Your task to perform on an android device: turn off airplane mode Image 0: 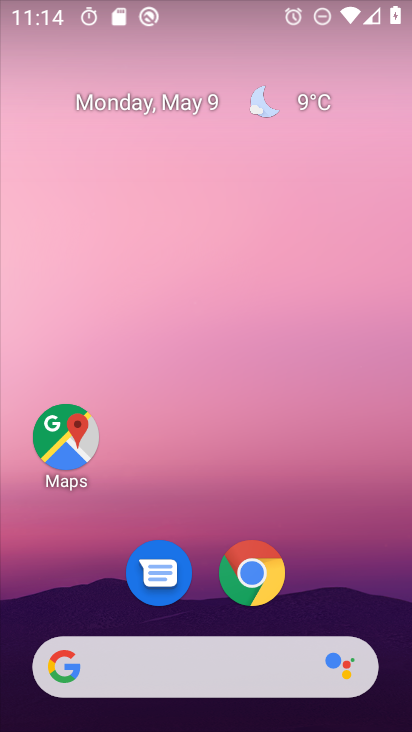
Step 0: drag from (349, 554) to (354, 198)
Your task to perform on an android device: turn off airplane mode Image 1: 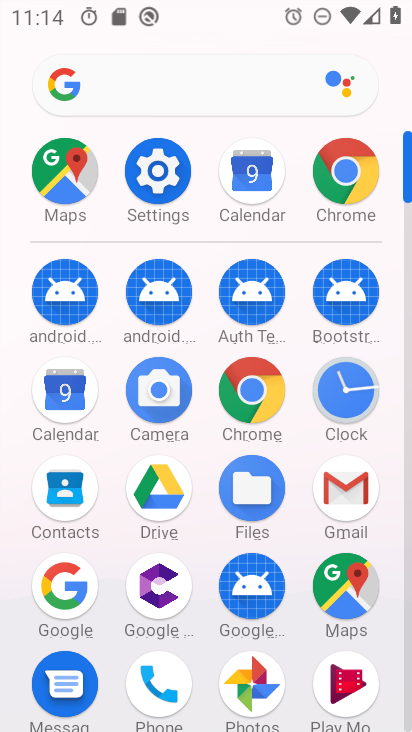
Step 1: click (168, 183)
Your task to perform on an android device: turn off airplane mode Image 2: 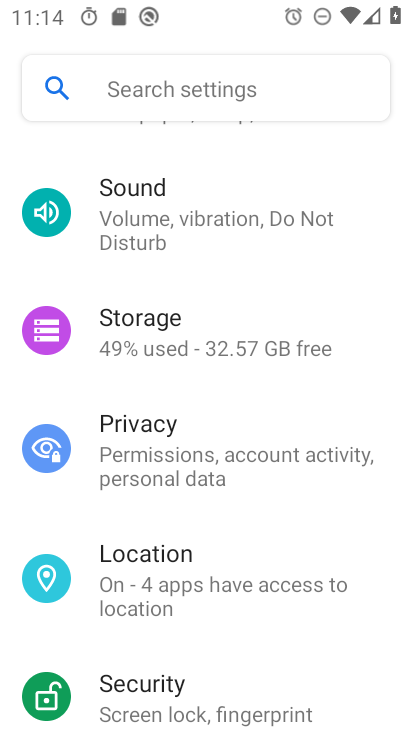
Step 2: drag from (322, 645) to (328, 226)
Your task to perform on an android device: turn off airplane mode Image 3: 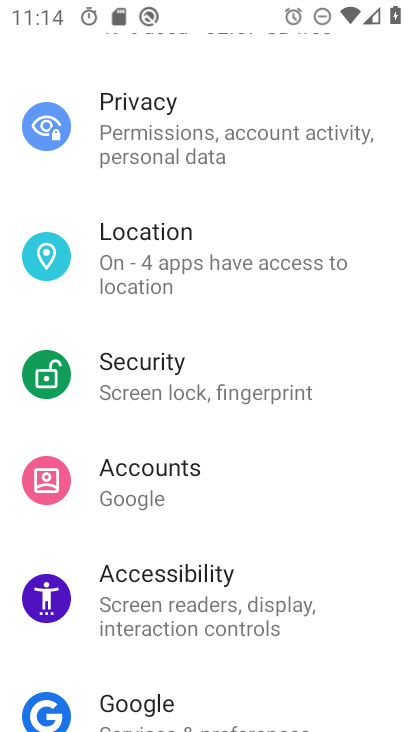
Step 3: drag from (223, 639) to (268, 269)
Your task to perform on an android device: turn off airplane mode Image 4: 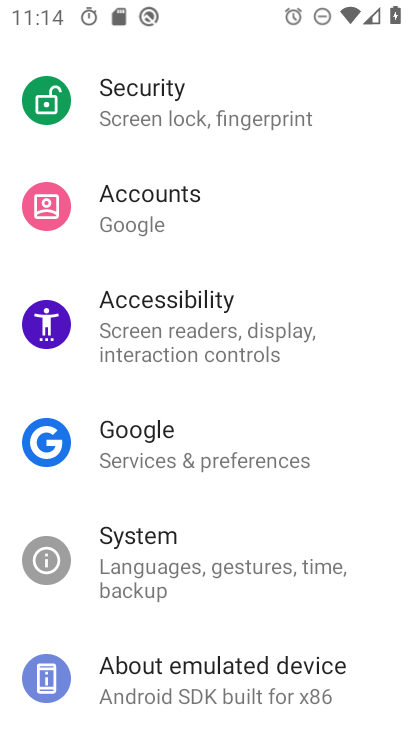
Step 4: drag from (265, 250) to (150, 665)
Your task to perform on an android device: turn off airplane mode Image 5: 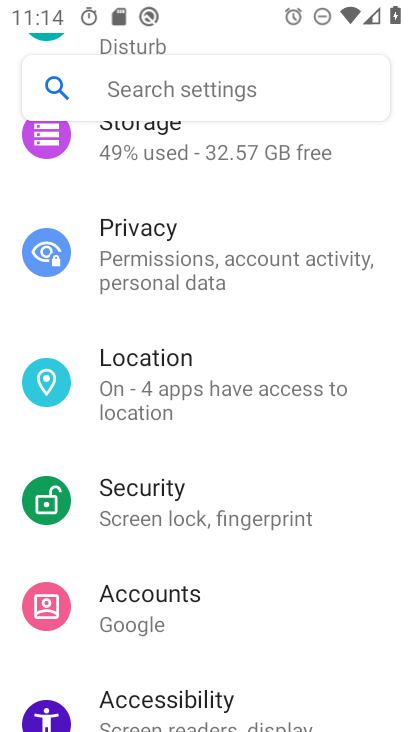
Step 5: drag from (247, 153) to (265, 525)
Your task to perform on an android device: turn off airplane mode Image 6: 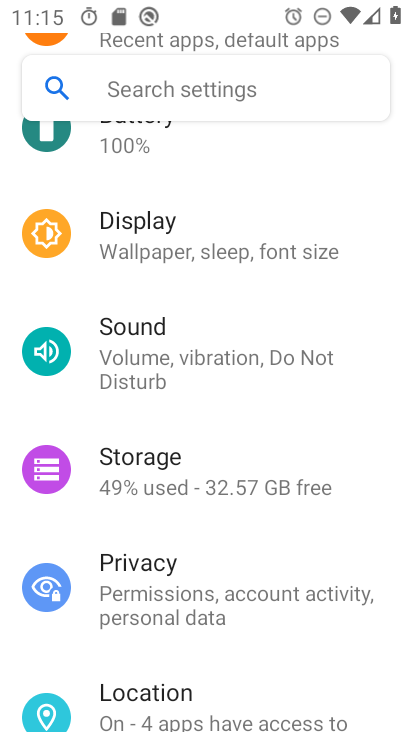
Step 6: drag from (289, 179) to (196, 599)
Your task to perform on an android device: turn off airplane mode Image 7: 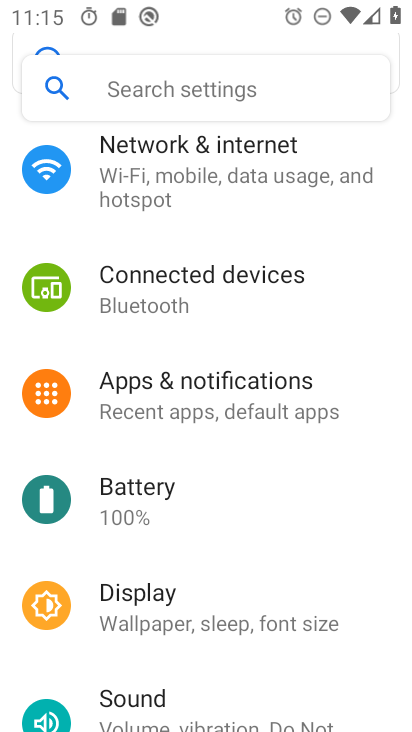
Step 7: drag from (203, 240) to (170, 589)
Your task to perform on an android device: turn off airplane mode Image 8: 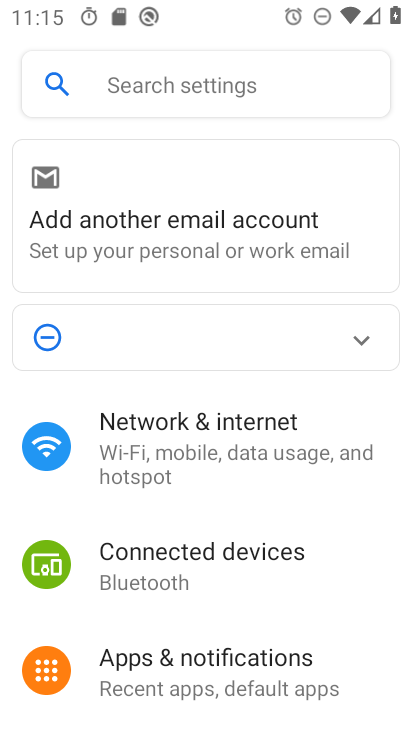
Step 8: click (176, 445)
Your task to perform on an android device: turn off airplane mode Image 9: 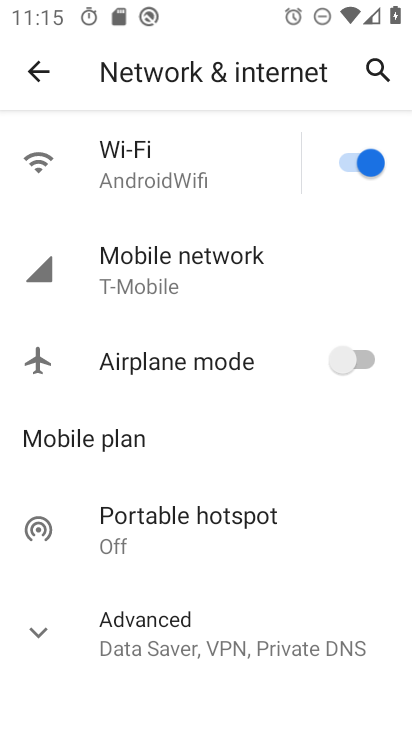
Step 9: task complete